Your task to perform on an android device: Open Android settings Image 0: 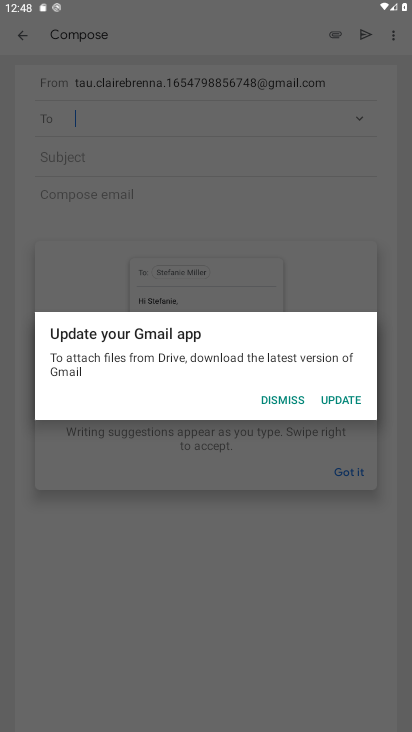
Step 0: click (294, 396)
Your task to perform on an android device: Open Android settings Image 1: 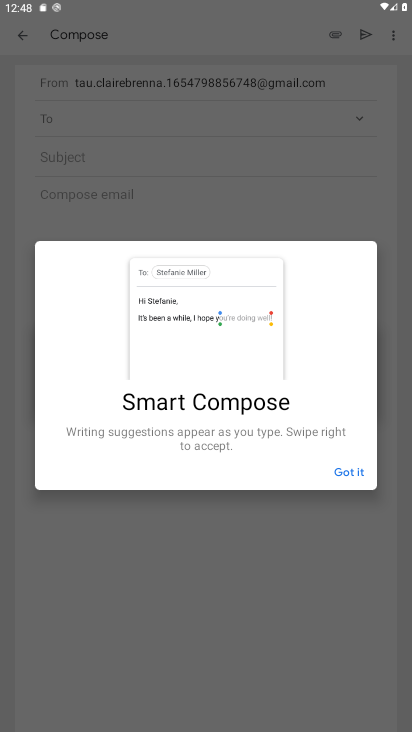
Step 1: click (290, 395)
Your task to perform on an android device: Open Android settings Image 2: 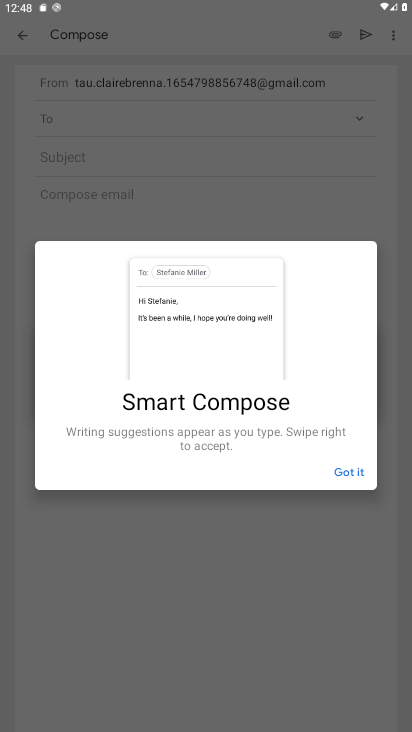
Step 2: click (345, 462)
Your task to perform on an android device: Open Android settings Image 3: 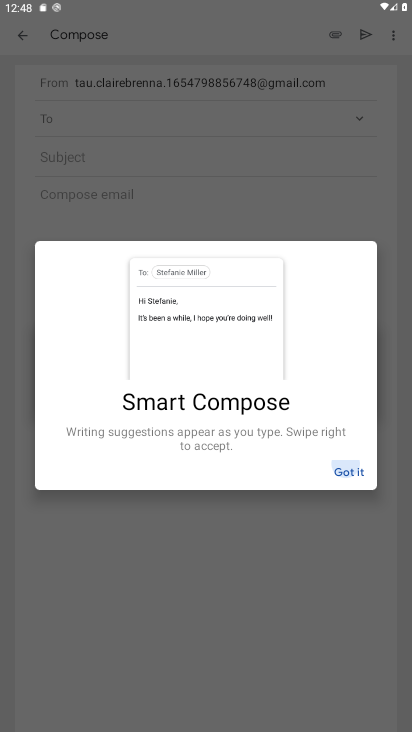
Step 3: click (345, 462)
Your task to perform on an android device: Open Android settings Image 4: 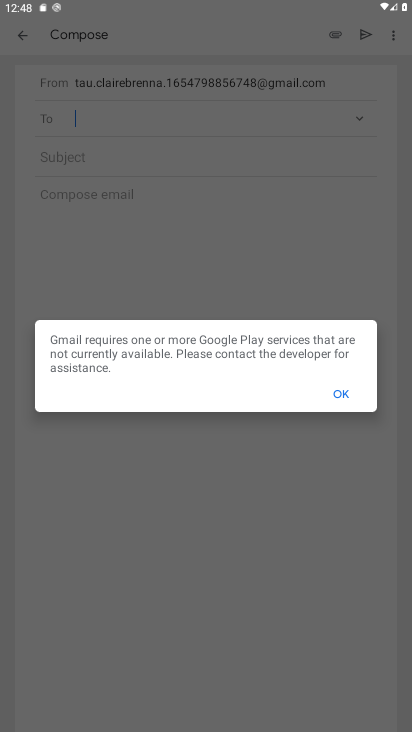
Step 4: click (345, 462)
Your task to perform on an android device: Open Android settings Image 5: 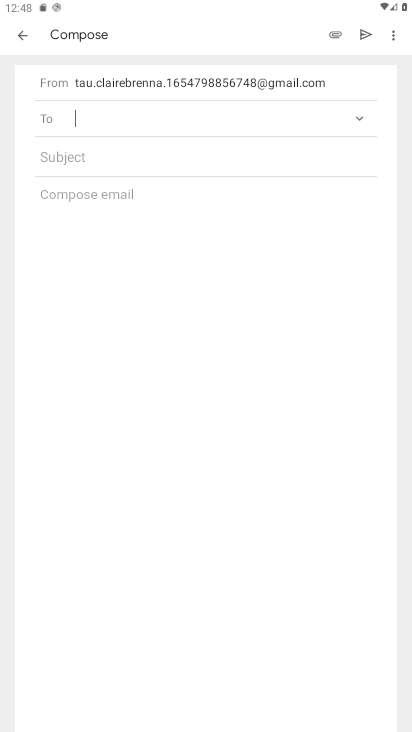
Step 5: click (345, 462)
Your task to perform on an android device: Open Android settings Image 6: 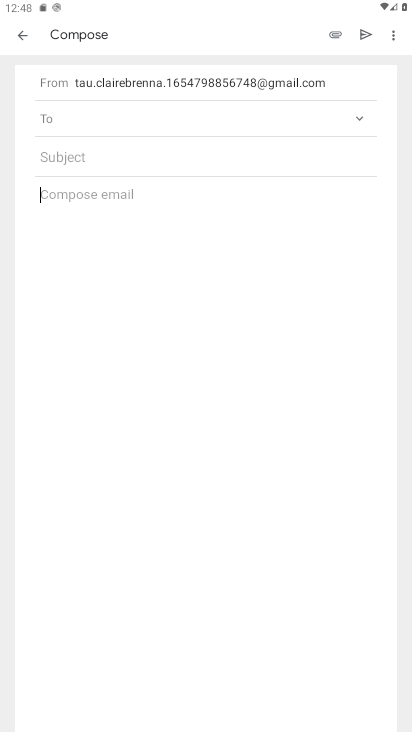
Step 6: click (346, 462)
Your task to perform on an android device: Open Android settings Image 7: 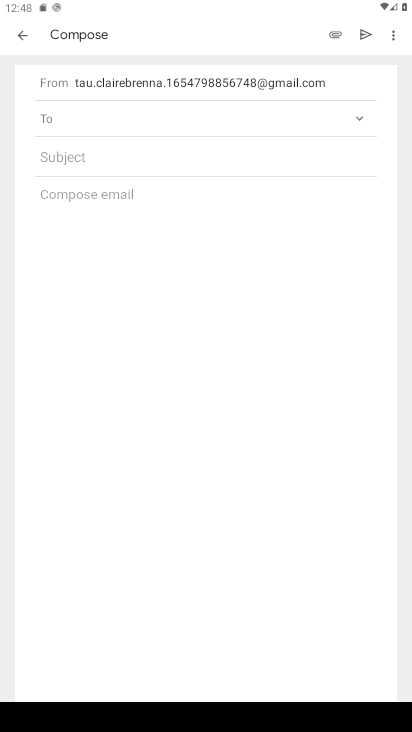
Step 7: click (13, 32)
Your task to perform on an android device: Open Android settings Image 8: 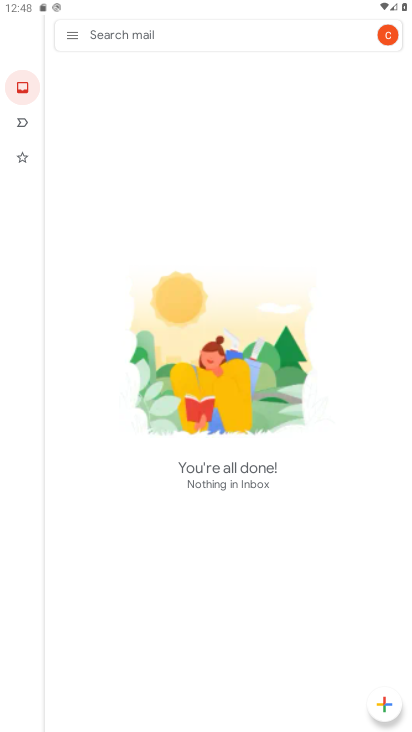
Step 8: press back button
Your task to perform on an android device: Open Android settings Image 9: 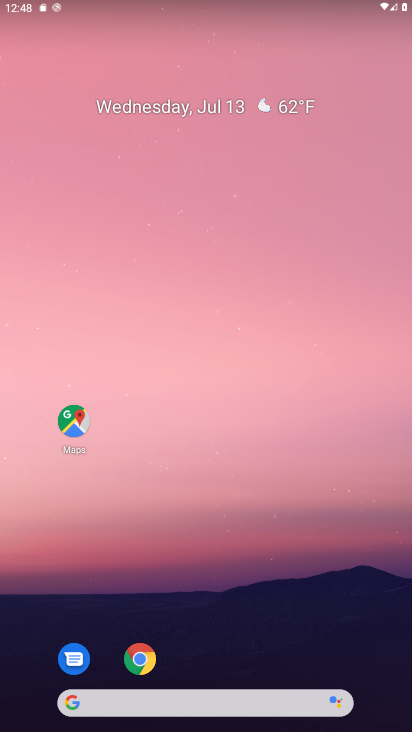
Step 9: drag from (269, 650) to (277, 300)
Your task to perform on an android device: Open Android settings Image 10: 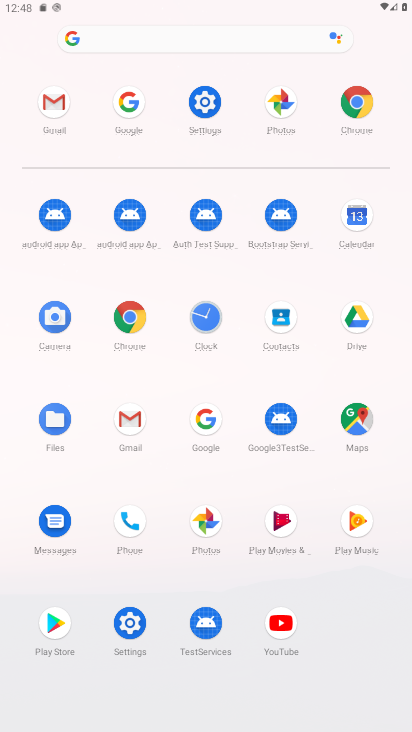
Step 10: click (120, 627)
Your task to perform on an android device: Open Android settings Image 11: 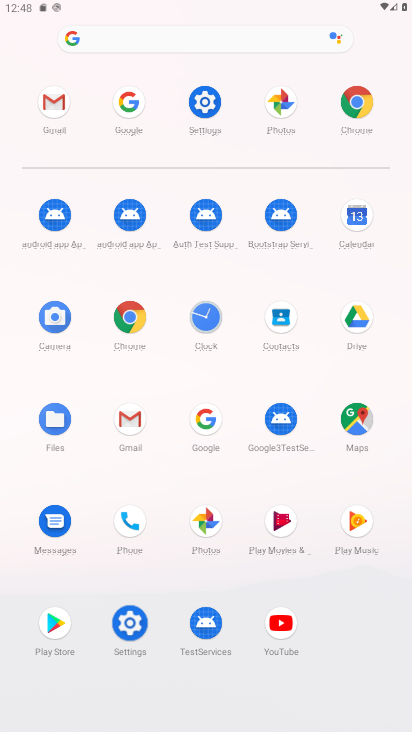
Step 11: click (119, 625)
Your task to perform on an android device: Open Android settings Image 12: 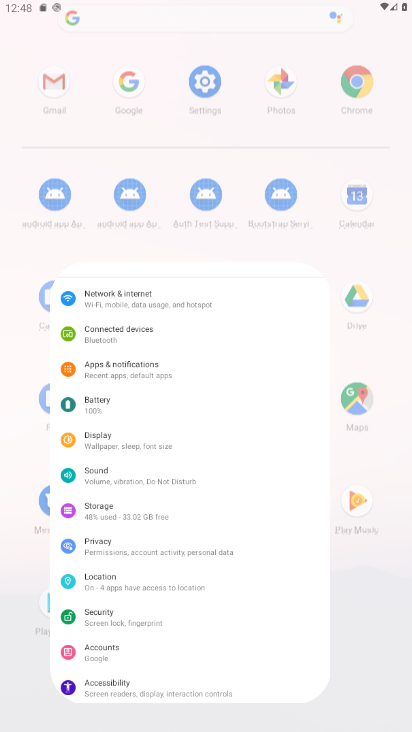
Step 12: click (120, 627)
Your task to perform on an android device: Open Android settings Image 13: 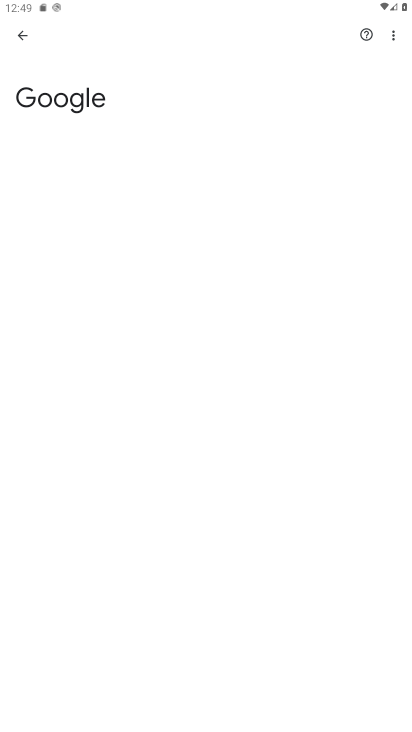
Step 13: press back button
Your task to perform on an android device: Open Android settings Image 14: 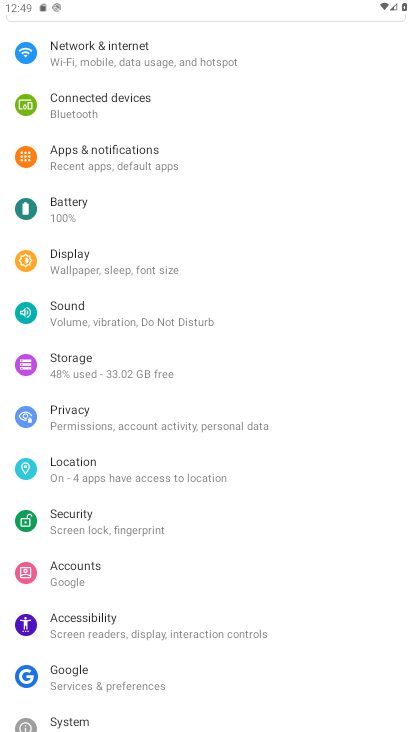
Step 14: drag from (120, 658) to (134, 154)
Your task to perform on an android device: Open Android settings Image 15: 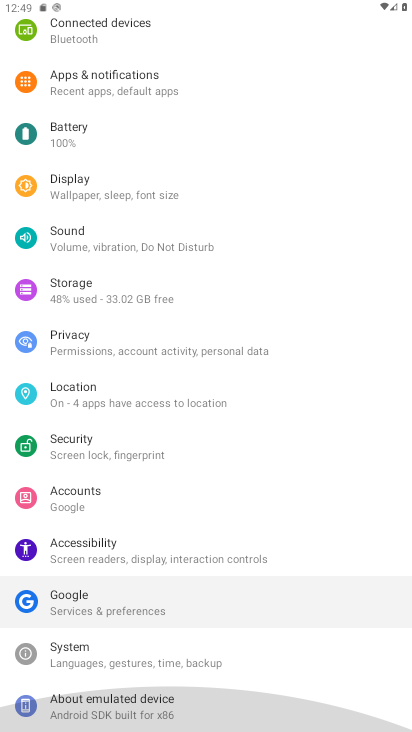
Step 15: drag from (135, 552) to (145, 236)
Your task to perform on an android device: Open Android settings Image 16: 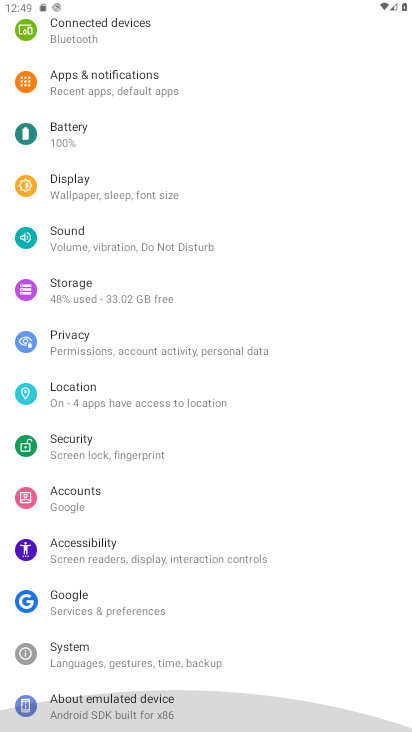
Step 16: drag from (170, 514) to (183, 249)
Your task to perform on an android device: Open Android settings Image 17: 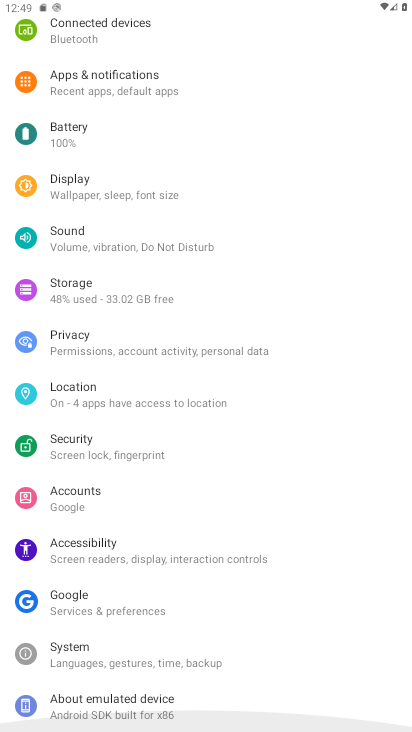
Step 17: drag from (154, 588) to (131, 339)
Your task to perform on an android device: Open Android settings Image 18: 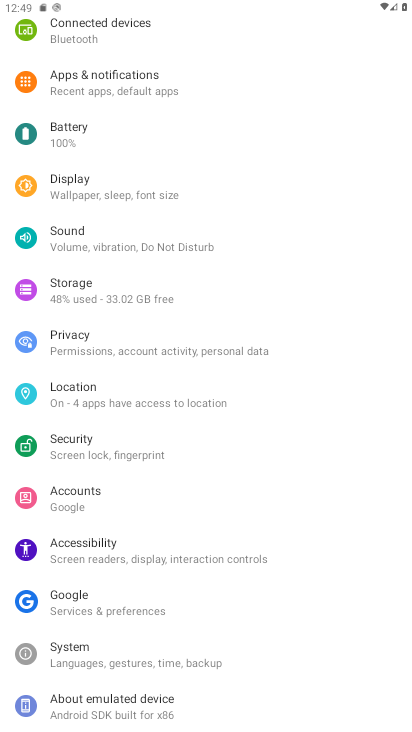
Step 18: click (92, 706)
Your task to perform on an android device: Open Android settings Image 19: 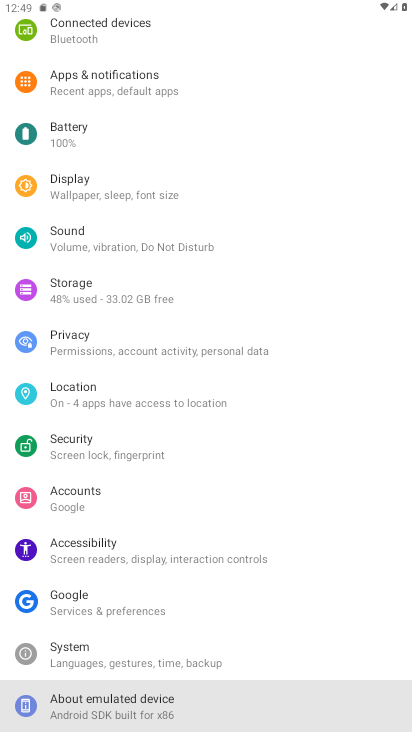
Step 19: click (93, 705)
Your task to perform on an android device: Open Android settings Image 20: 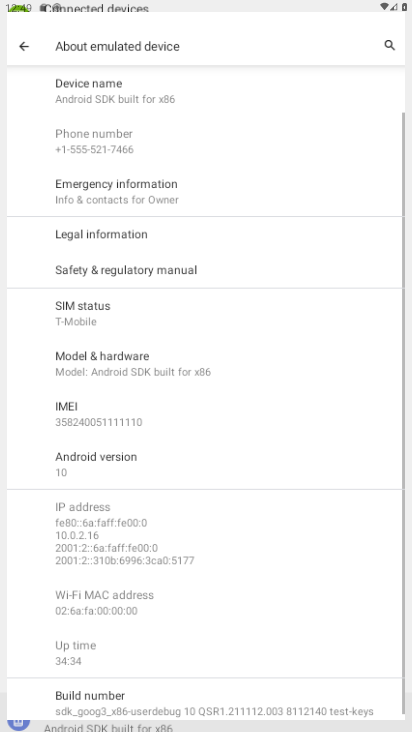
Step 20: click (93, 705)
Your task to perform on an android device: Open Android settings Image 21: 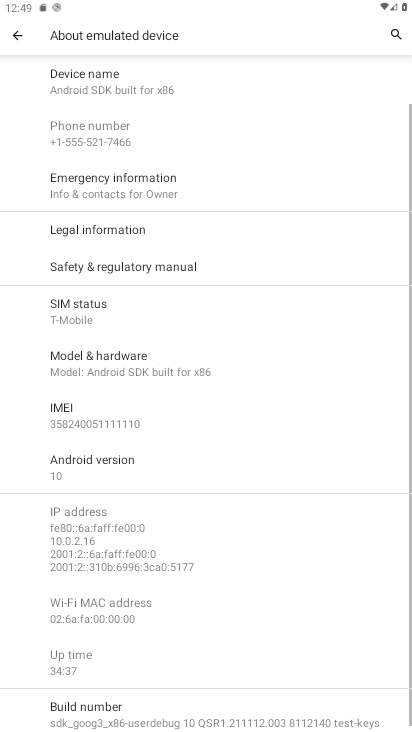
Step 21: task complete